Your task to perform on an android device: Go to eBay Image 0: 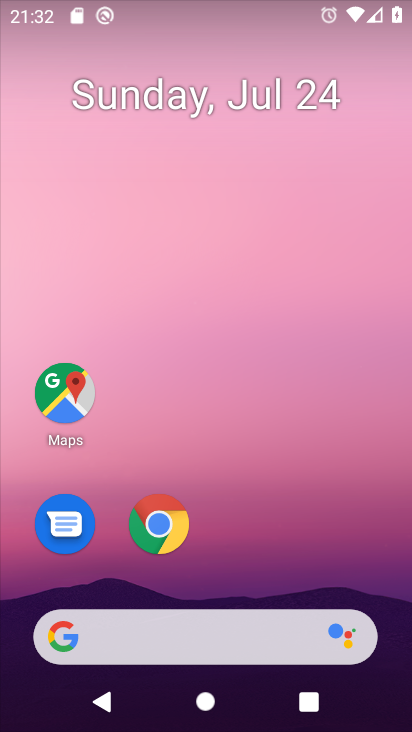
Step 0: click (211, 632)
Your task to perform on an android device: Go to eBay Image 1: 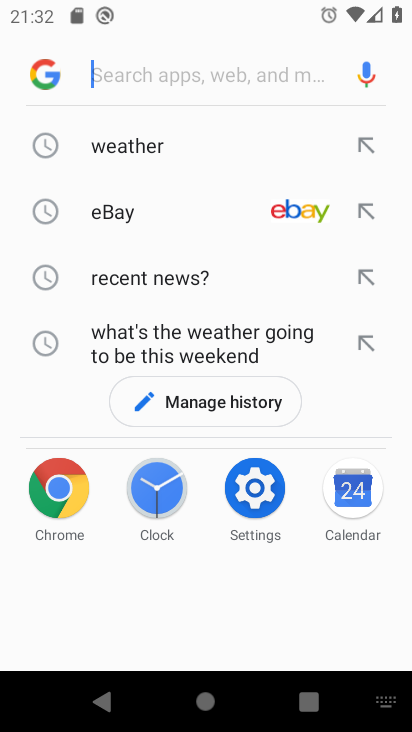
Step 1: click (289, 209)
Your task to perform on an android device: Go to eBay Image 2: 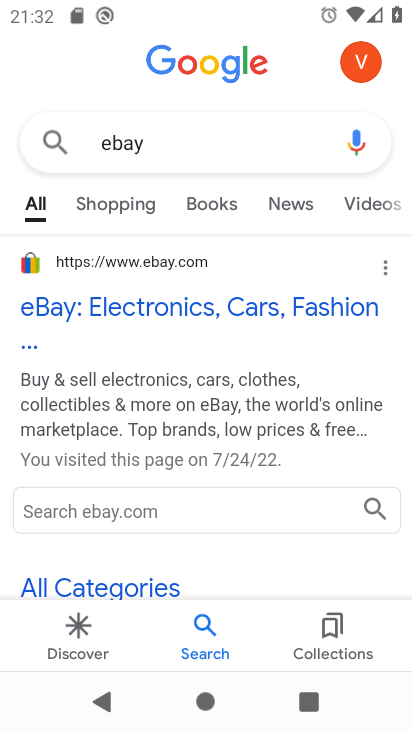
Step 2: click (113, 301)
Your task to perform on an android device: Go to eBay Image 3: 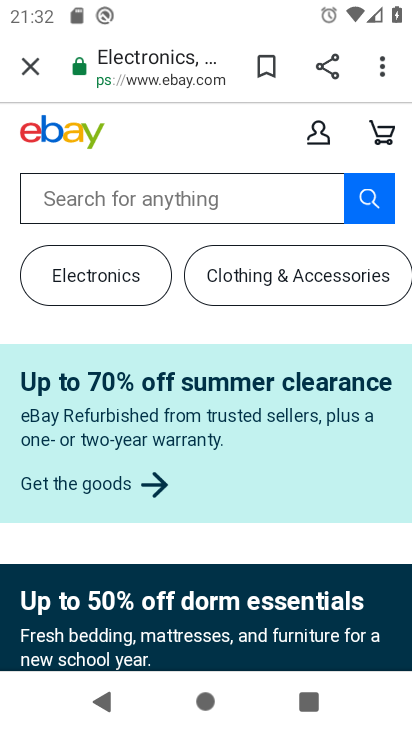
Step 3: task complete